Your task to perform on an android device: change the clock display to analog Image 0: 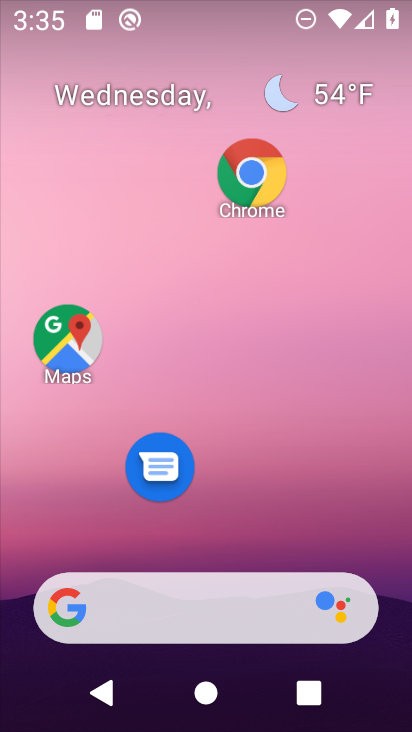
Step 0: drag from (245, 538) to (300, 124)
Your task to perform on an android device: change the clock display to analog Image 1: 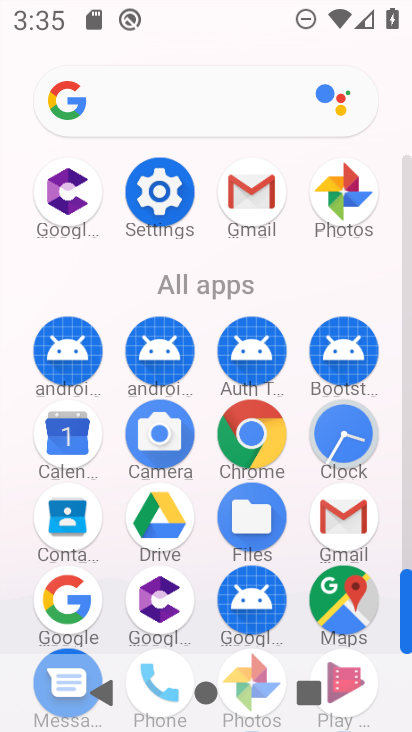
Step 1: click (332, 430)
Your task to perform on an android device: change the clock display to analog Image 2: 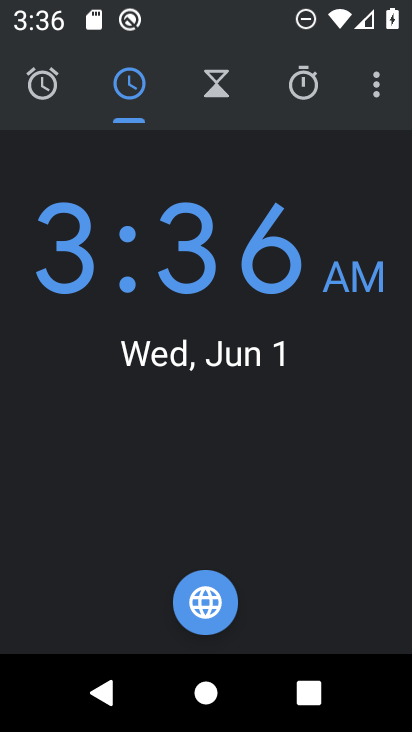
Step 2: drag from (376, 81) to (274, 156)
Your task to perform on an android device: change the clock display to analog Image 3: 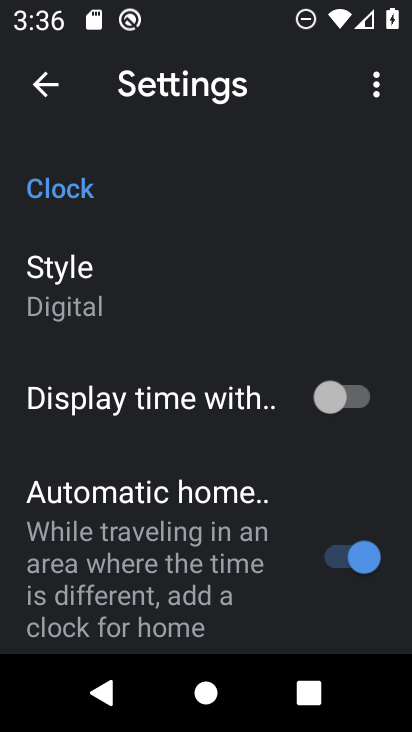
Step 3: click (106, 292)
Your task to perform on an android device: change the clock display to analog Image 4: 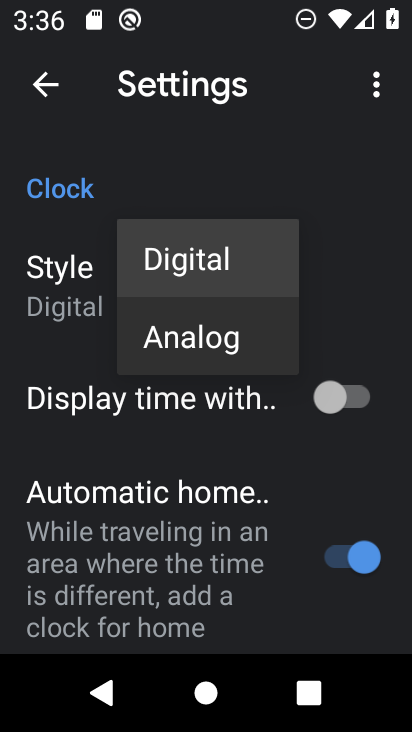
Step 4: click (166, 343)
Your task to perform on an android device: change the clock display to analog Image 5: 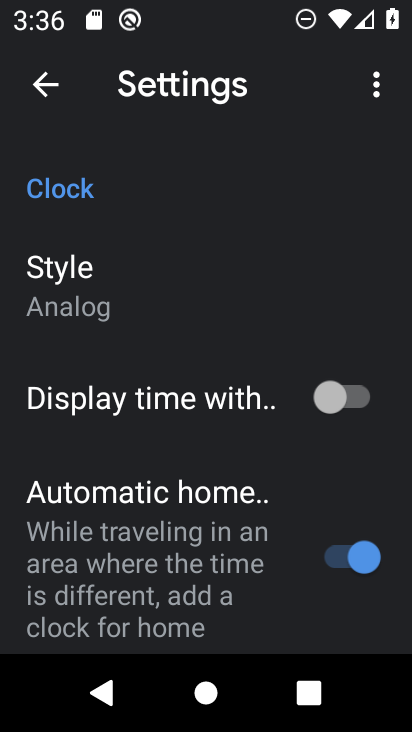
Step 5: task complete